Your task to perform on an android device: change keyboard looks Image 0: 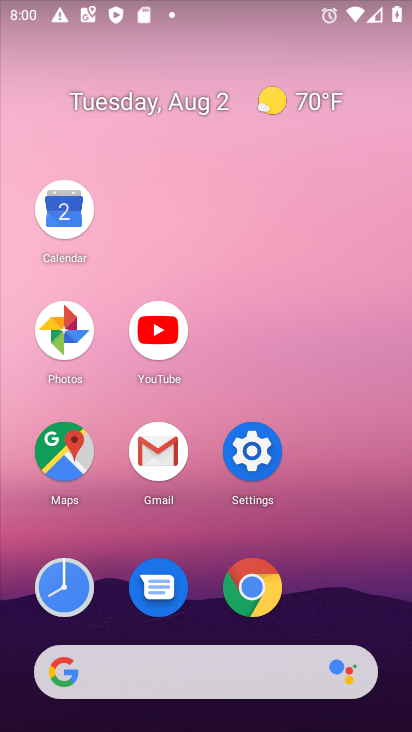
Step 0: click (250, 454)
Your task to perform on an android device: change keyboard looks Image 1: 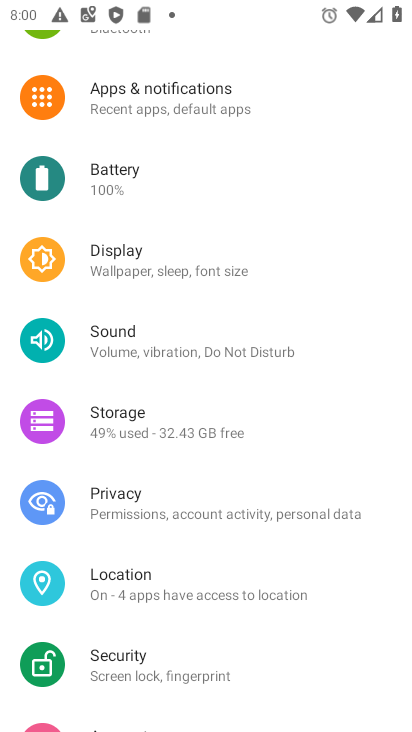
Step 1: drag from (230, 667) to (177, 167)
Your task to perform on an android device: change keyboard looks Image 2: 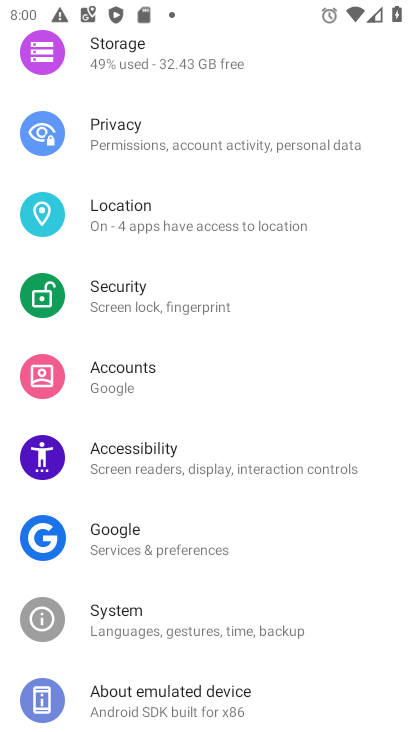
Step 2: click (124, 614)
Your task to perform on an android device: change keyboard looks Image 3: 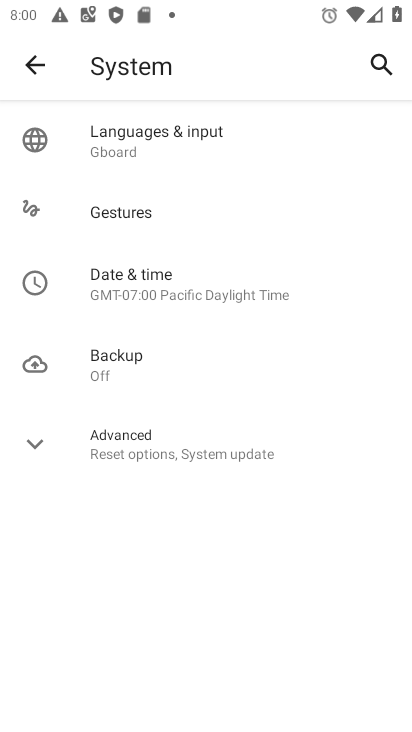
Step 3: click (117, 134)
Your task to perform on an android device: change keyboard looks Image 4: 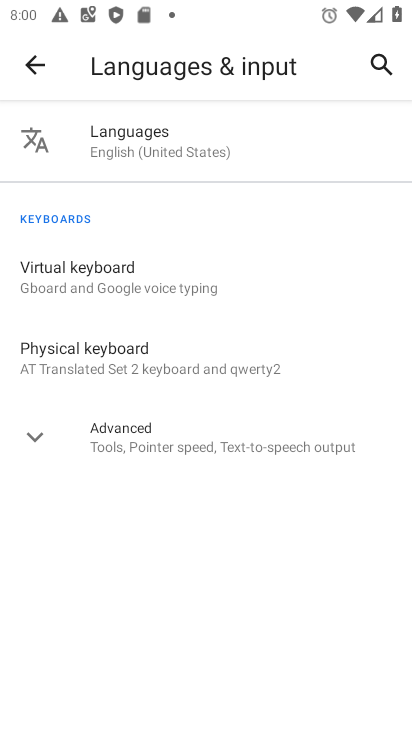
Step 4: click (91, 266)
Your task to perform on an android device: change keyboard looks Image 5: 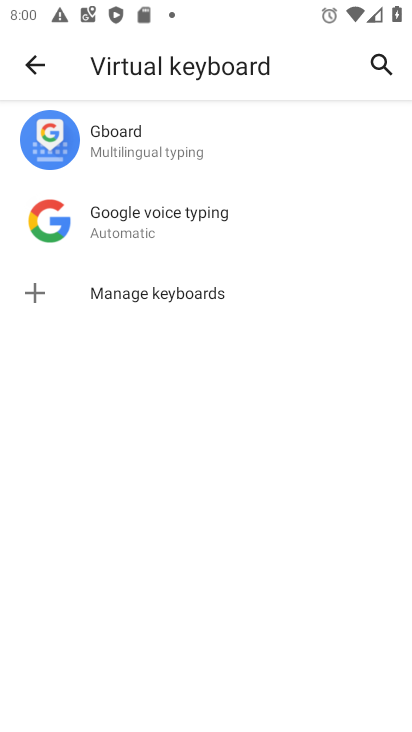
Step 5: click (101, 127)
Your task to perform on an android device: change keyboard looks Image 6: 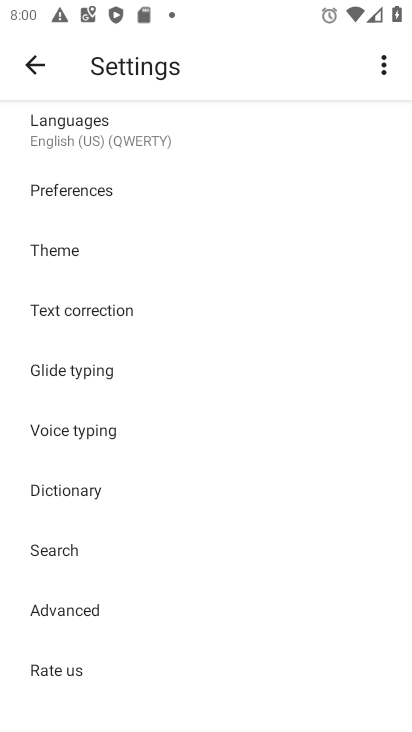
Step 6: click (54, 247)
Your task to perform on an android device: change keyboard looks Image 7: 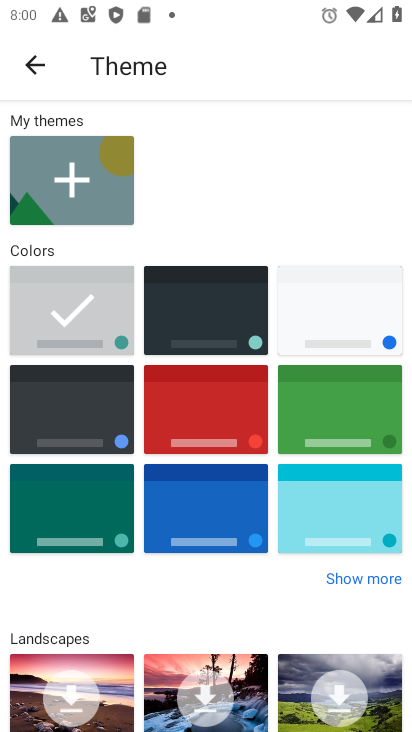
Step 7: click (211, 405)
Your task to perform on an android device: change keyboard looks Image 8: 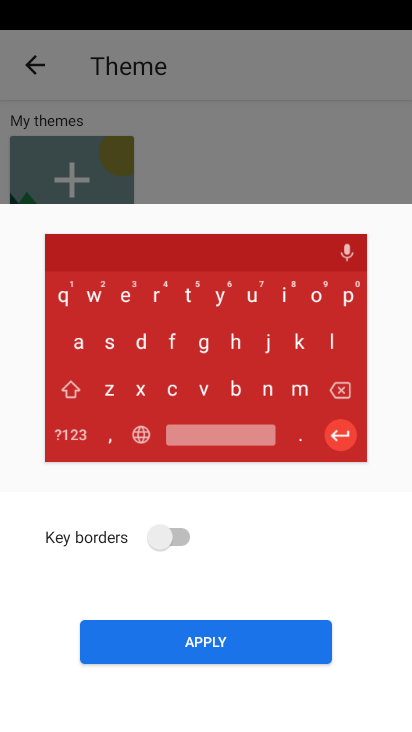
Step 8: click (212, 648)
Your task to perform on an android device: change keyboard looks Image 9: 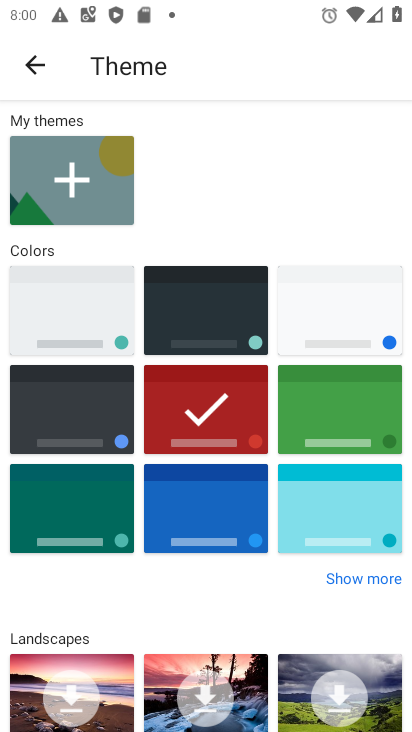
Step 9: task complete